Your task to perform on an android device: choose inbox layout in the gmail app Image 0: 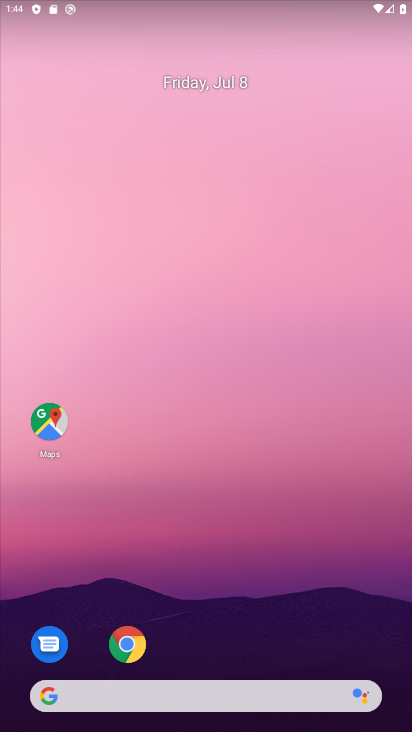
Step 0: drag from (232, 620) to (269, 58)
Your task to perform on an android device: choose inbox layout in the gmail app Image 1: 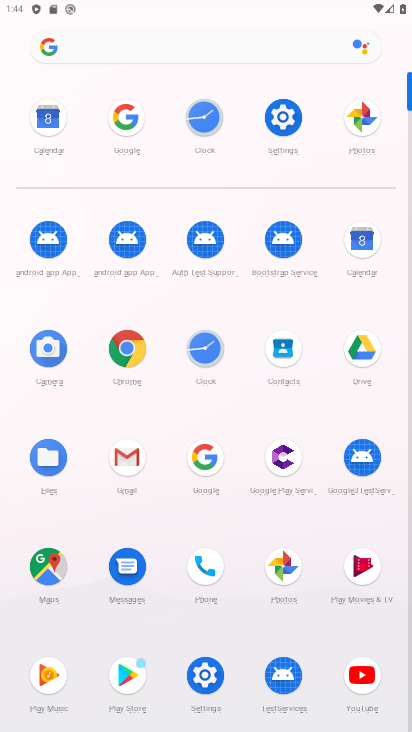
Step 1: click (119, 460)
Your task to perform on an android device: choose inbox layout in the gmail app Image 2: 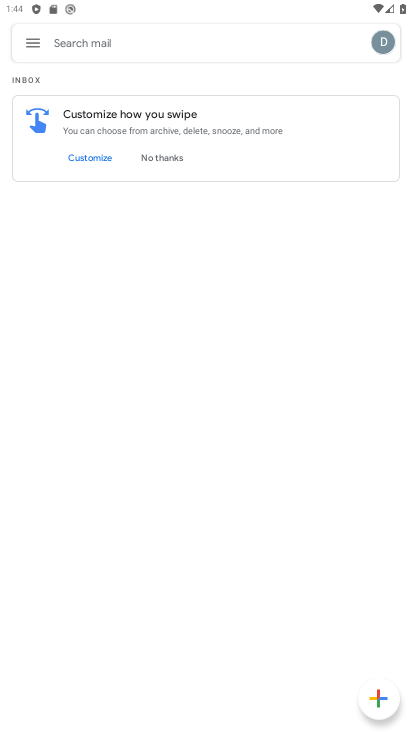
Step 2: click (23, 44)
Your task to perform on an android device: choose inbox layout in the gmail app Image 3: 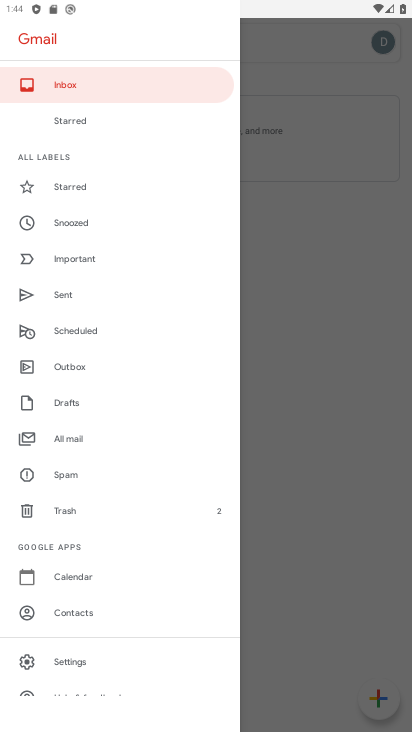
Step 3: click (77, 652)
Your task to perform on an android device: choose inbox layout in the gmail app Image 4: 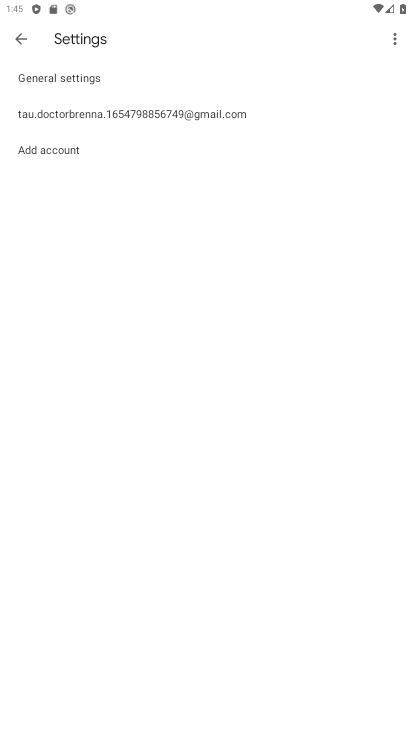
Step 4: click (113, 110)
Your task to perform on an android device: choose inbox layout in the gmail app Image 5: 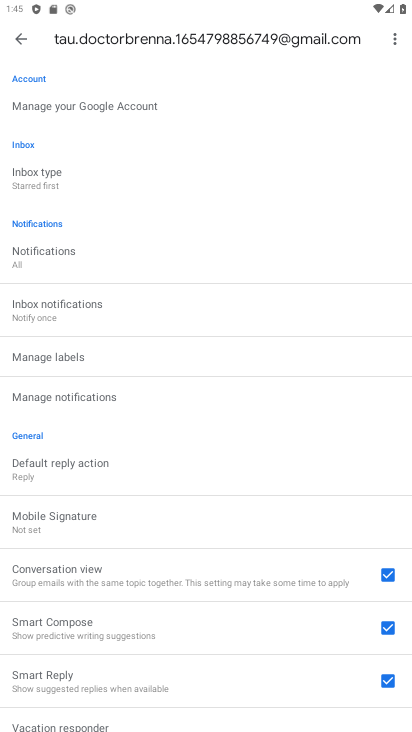
Step 5: click (66, 182)
Your task to perform on an android device: choose inbox layout in the gmail app Image 6: 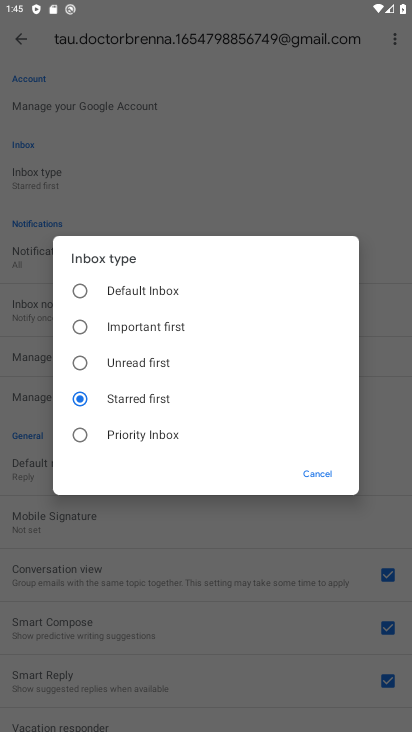
Step 6: click (84, 295)
Your task to perform on an android device: choose inbox layout in the gmail app Image 7: 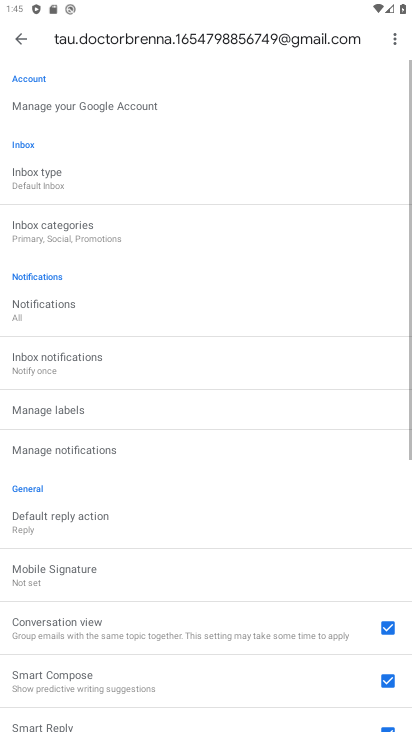
Step 7: task complete